Your task to perform on an android device: open a bookmark in the chrome app Image 0: 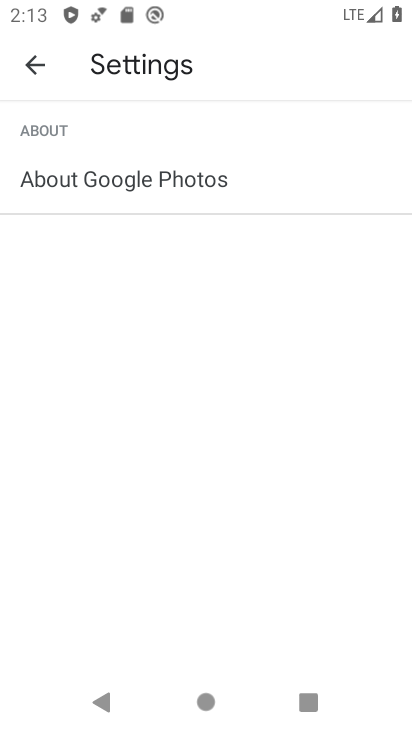
Step 0: press home button
Your task to perform on an android device: open a bookmark in the chrome app Image 1: 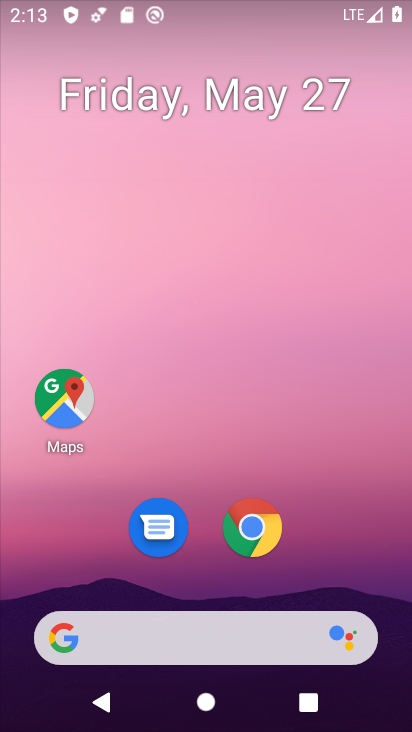
Step 1: click (259, 524)
Your task to perform on an android device: open a bookmark in the chrome app Image 2: 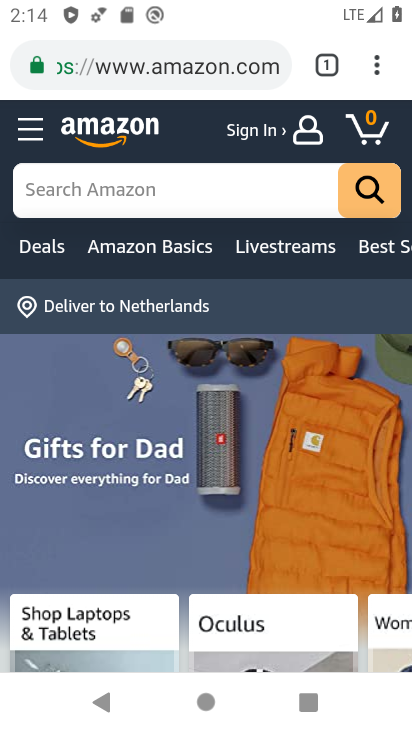
Step 2: click (377, 65)
Your task to perform on an android device: open a bookmark in the chrome app Image 3: 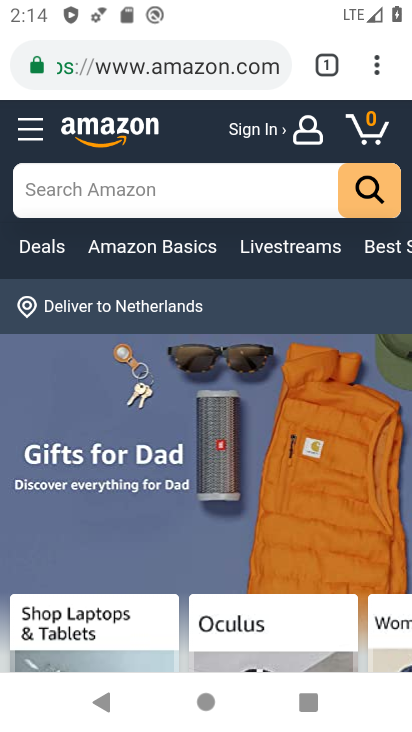
Step 3: click (370, 64)
Your task to perform on an android device: open a bookmark in the chrome app Image 4: 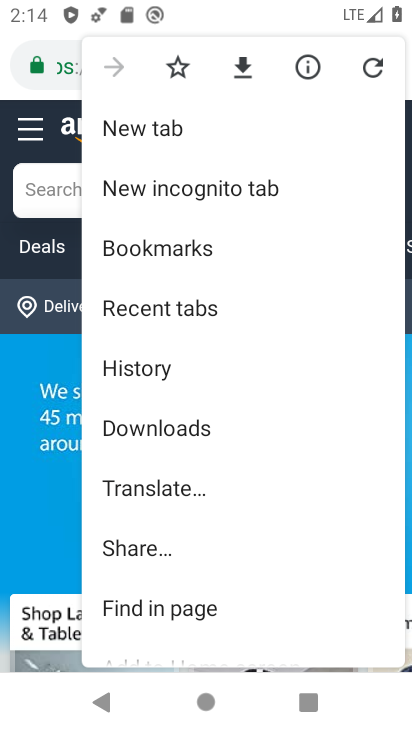
Step 4: click (223, 244)
Your task to perform on an android device: open a bookmark in the chrome app Image 5: 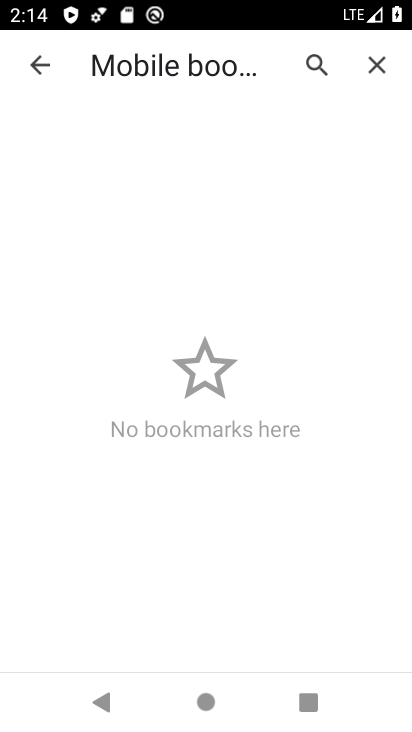
Step 5: task complete